Your task to perform on an android device: make emails show in primary in the gmail app Image 0: 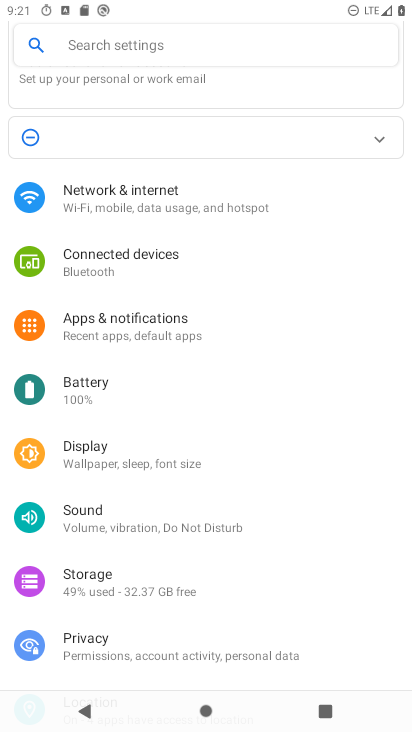
Step 0: press home button
Your task to perform on an android device: make emails show in primary in the gmail app Image 1: 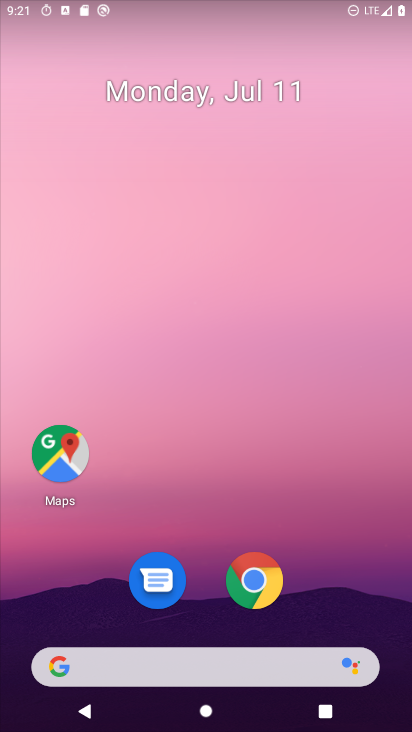
Step 1: drag from (297, 228) to (291, 25)
Your task to perform on an android device: make emails show in primary in the gmail app Image 2: 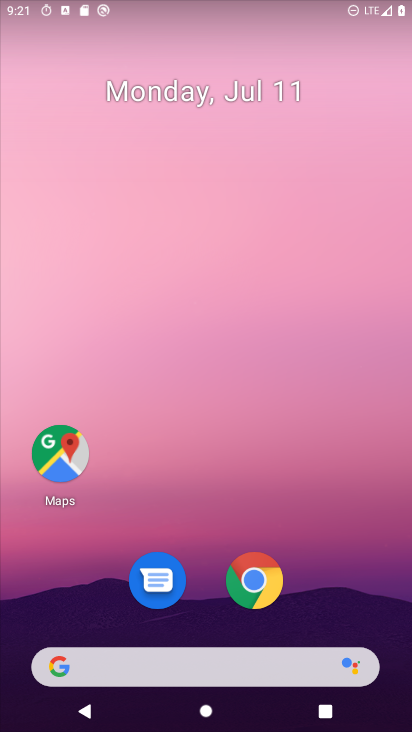
Step 2: drag from (328, 602) to (319, 26)
Your task to perform on an android device: make emails show in primary in the gmail app Image 3: 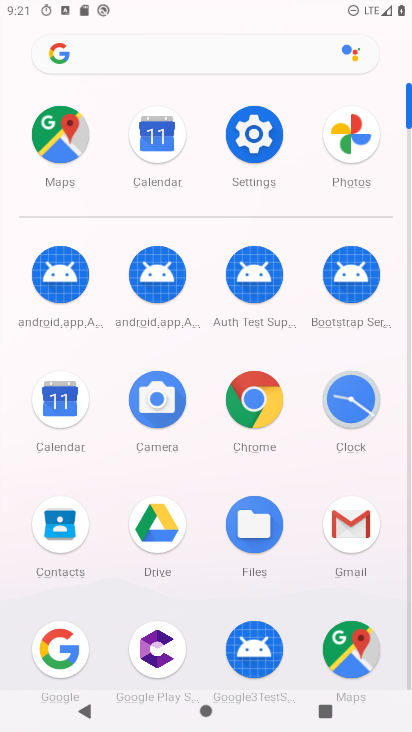
Step 3: click (348, 528)
Your task to perform on an android device: make emails show in primary in the gmail app Image 4: 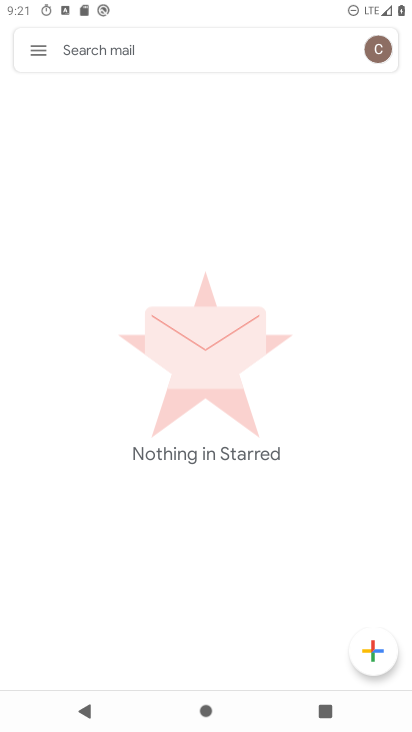
Step 4: click (36, 50)
Your task to perform on an android device: make emails show in primary in the gmail app Image 5: 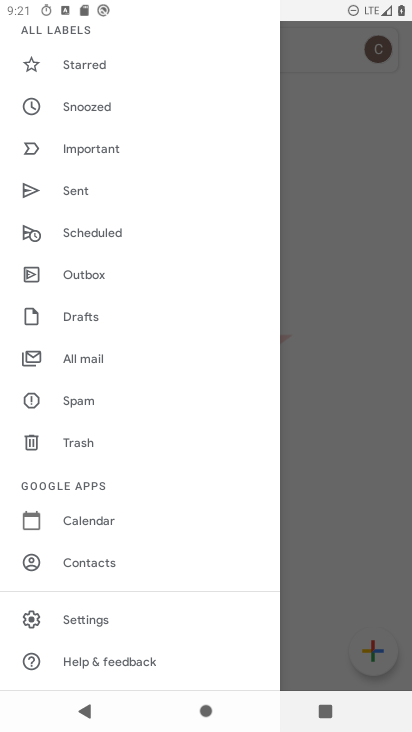
Step 5: click (78, 610)
Your task to perform on an android device: make emails show in primary in the gmail app Image 6: 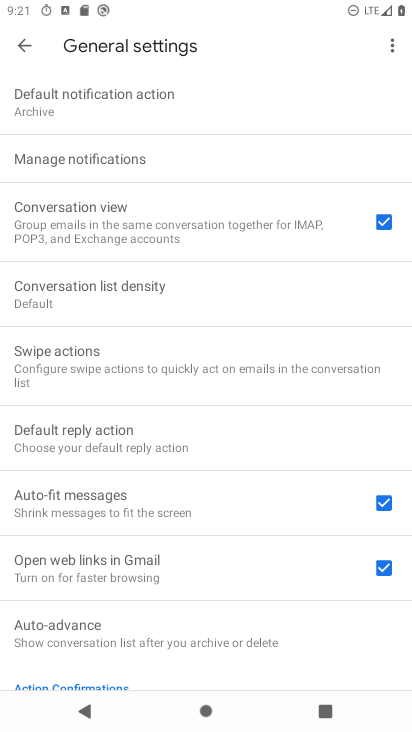
Step 6: click (19, 38)
Your task to perform on an android device: make emails show in primary in the gmail app Image 7: 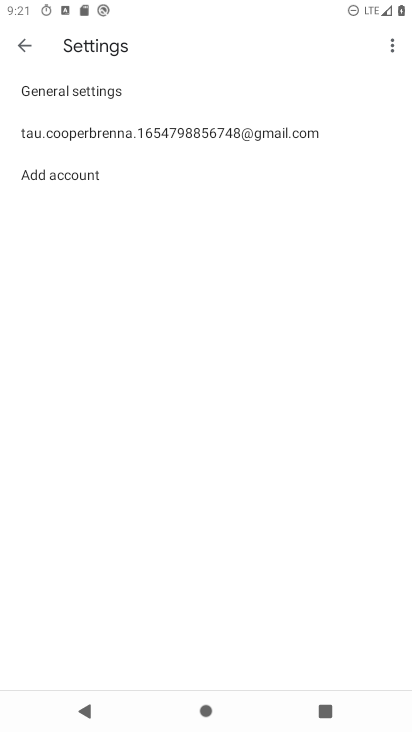
Step 7: click (88, 125)
Your task to perform on an android device: make emails show in primary in the gmail app Image 8: 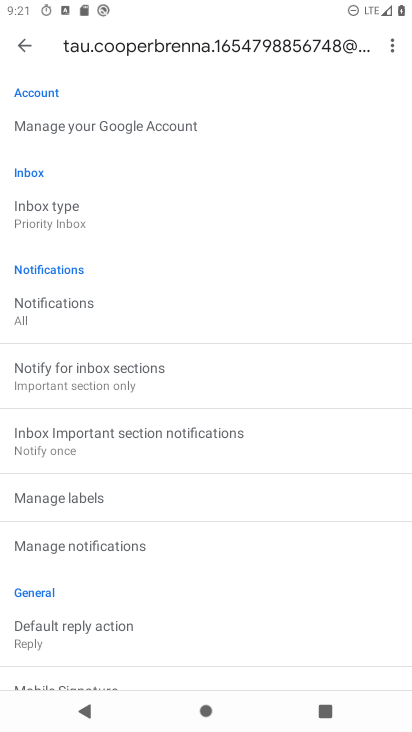
Step 8: click (81, 212)
Your task to perform on an android device: make emails show in primary in the gmail app Image 9: 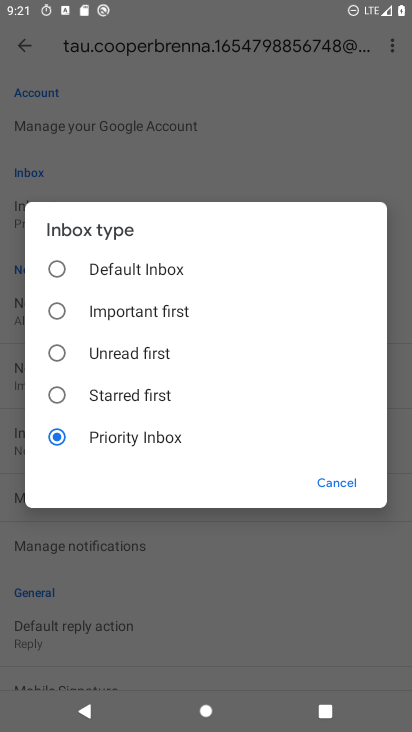
Step 9: click (53, 265)
Your task to perform on an android device: make emails show in primary in the gmail app Image 10: 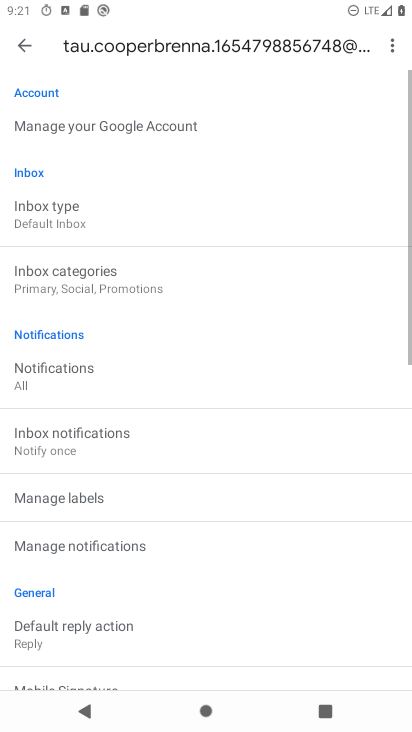
Step 10: click (53, 264)
Your task to perform on an android device: make emails show in primary in the gmail app Image 11: 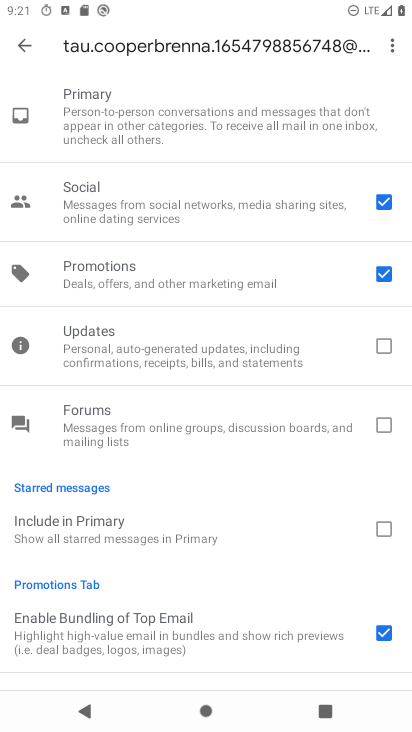
Step 11: click (58, 276)
Your task to perform on an android device: make emails show in primary in the gmail app Image 12: 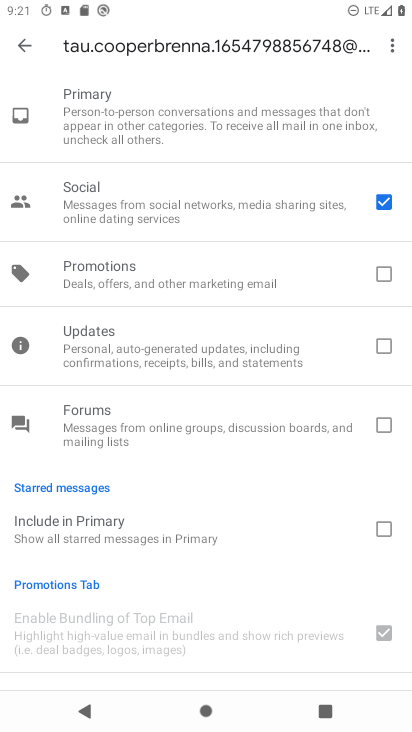
Step 12: click (382, 194)
Your task to perform on an android device: make emails show in primary in the gmail app Image 13: 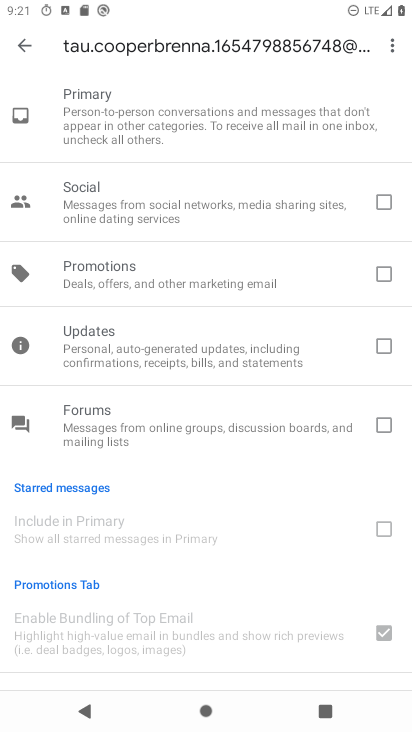
Step 13: click (29, 45)
Your task to perform on an android device: make emails show in primary in the gmail app Image 14: 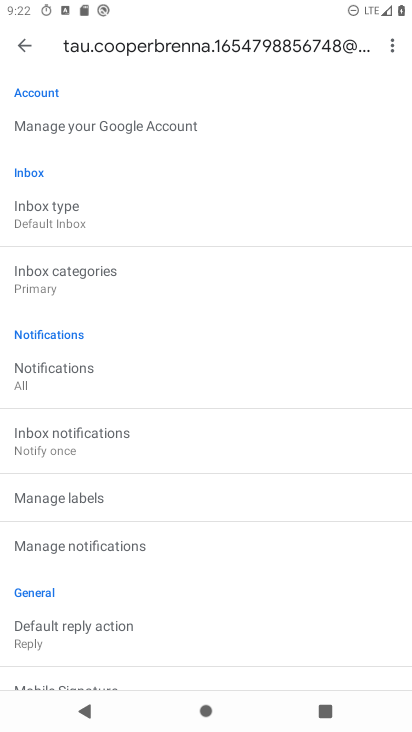
Step 14: task complete